Your task to perform on an android device: change the clock style Image 0: 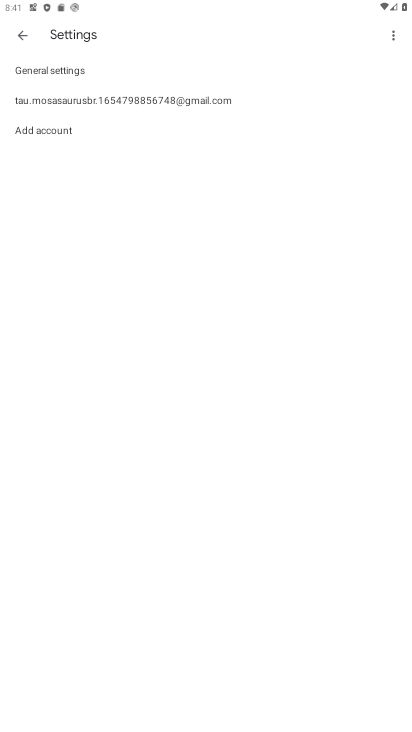
Step 0: press home button
Your task to perform on an android device: change the clock style Image 1: 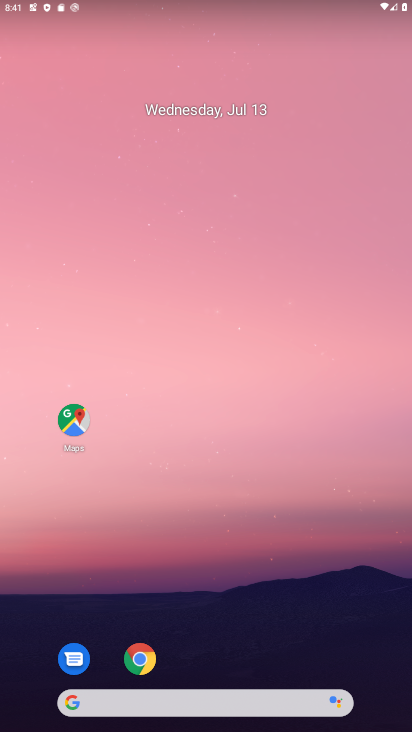
Step 1: drag from (23, 670) to (286, 52)
Your task to perform on an android device: change the clock style Image 2: 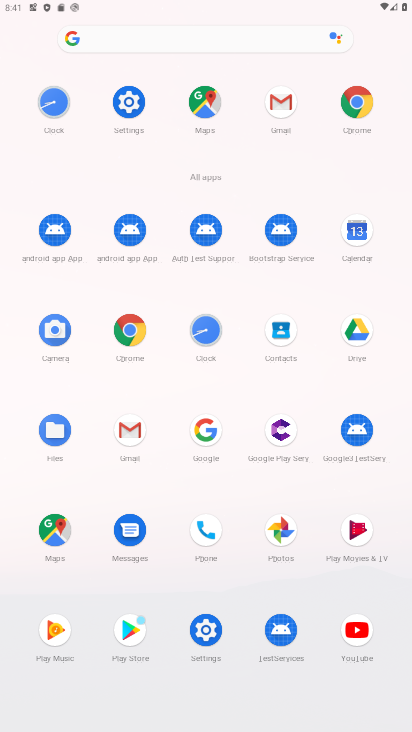
Step 2: click (200, 327)
Your task to perform on an android device: change the clock style Image 3: 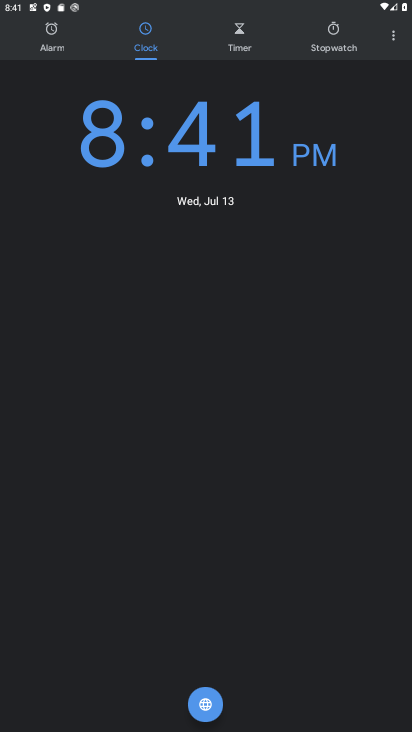
Step 3: click (395, 39)
Your task to perform on an android device: change the clock style Image 4: 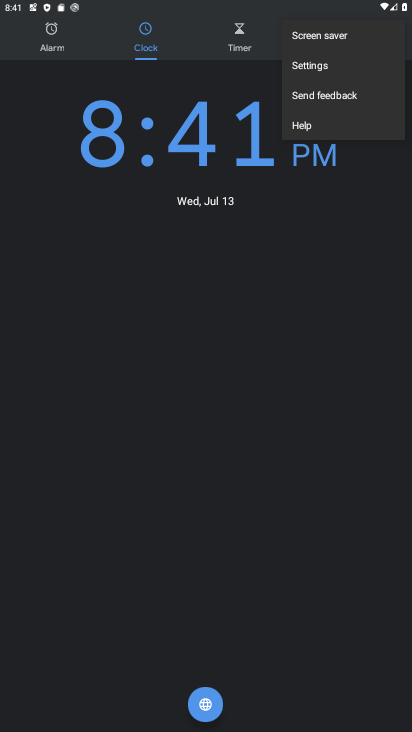
Step 4: click (331, 66)
Your task to perform on an android device: change the clock style Image 5: 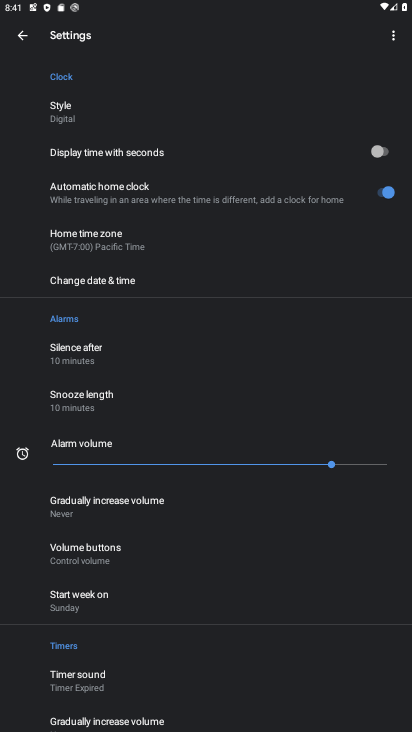
Step 5: click (69, 117)
Your task to perform on an android device: change the clock style Image 6: 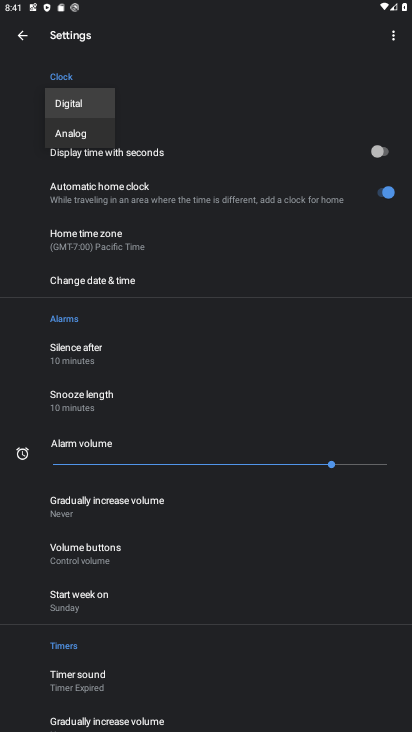
Step 6: click (78, 132)
Your task to perform on an android device: change the clock style Image 7: 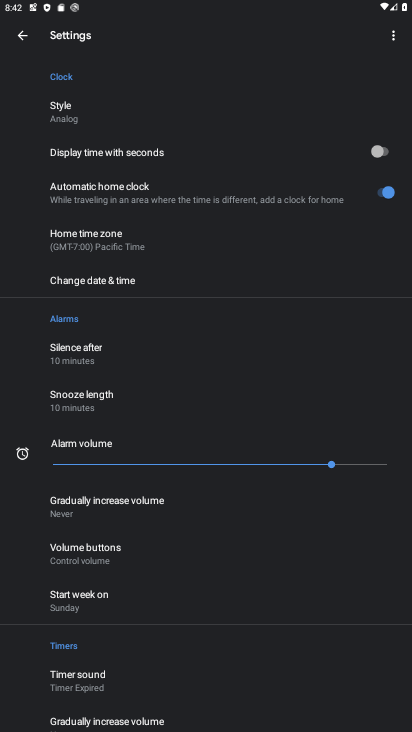
Step 7: task complete